Your task to perform on an android device: all mails in gmail Image 0: 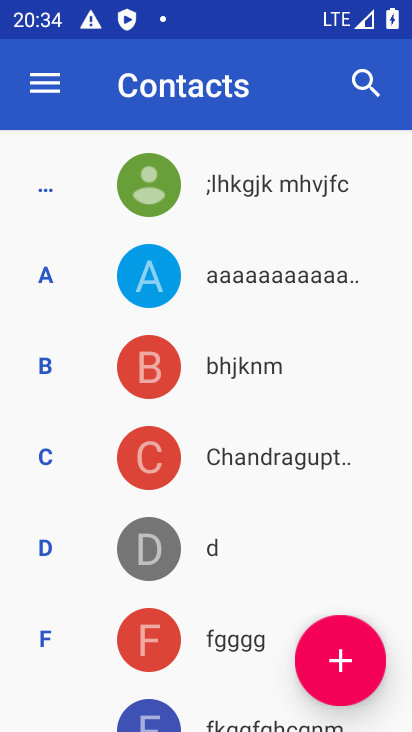
Step 0: press home button
Your task to perform on an android device: all mails in gmail Image 1: 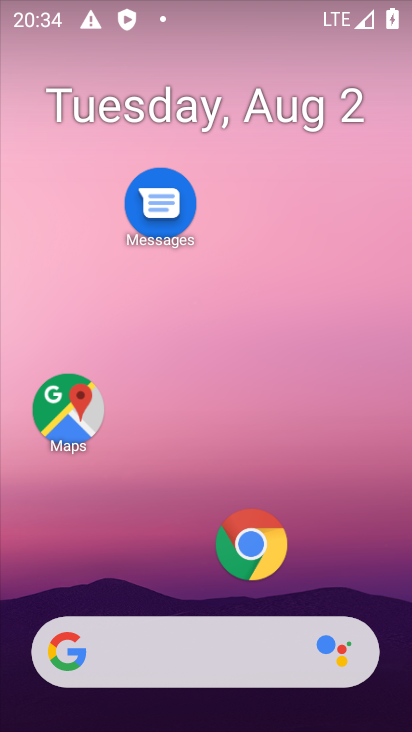
Step 1: drag from (181, 563) to (240, 227)
Your task to perform on an android device: all mails in gmail Image 2: 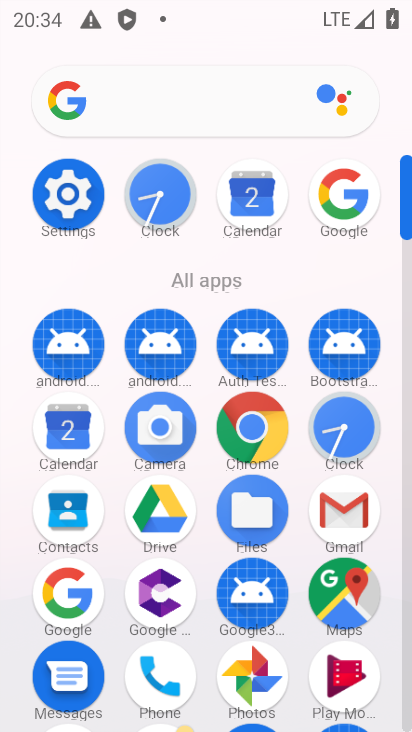
Step 2: click (336, 504)
Your task to perform on an android device: all mails in gmail Image 3: 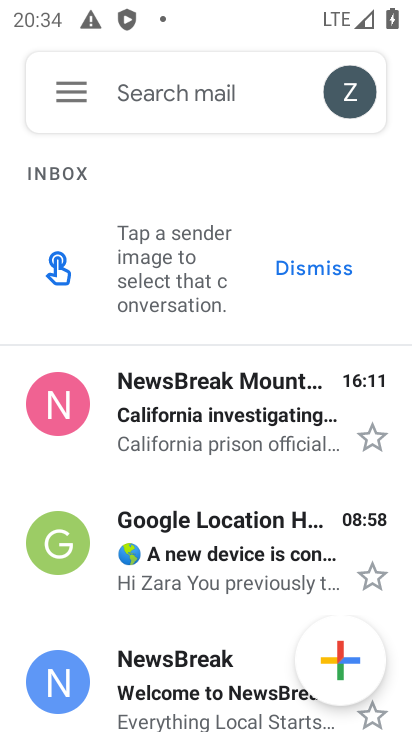
Step 3: click (85, 93)
Your task to perform on an android device: all mails in gmail Image 4: 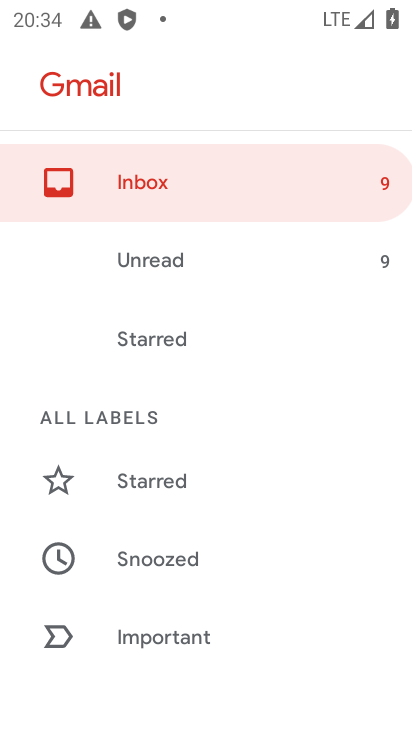
Step 4: drag from (130, 631) to (200, 216)
Your task to perform on an android device: all mails in gmail Image 5: 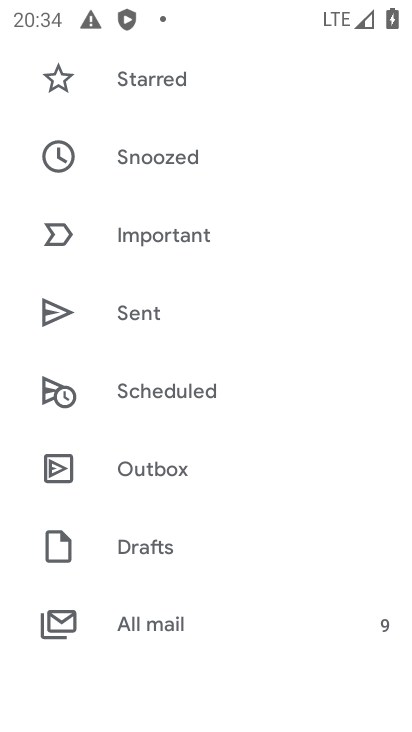
Step 5: drag from (200, 629) to (219, 479)
Your task to perform on an android device: all mails in gmail Image 6: 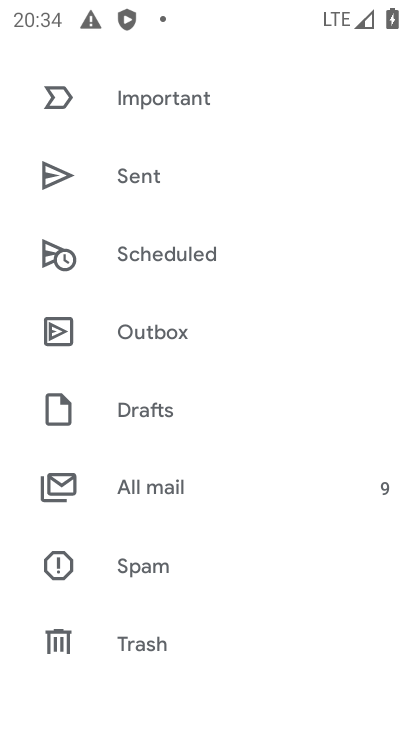
Step 6: click (175, 489)
Your task to perform on an android device: all mails in gmail Image 7: 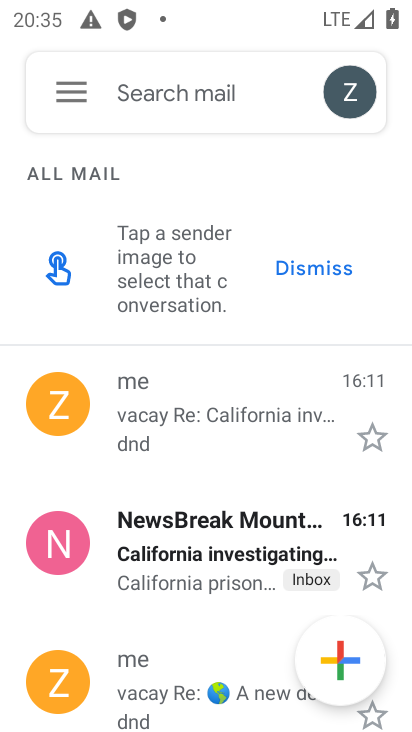
Step 7: task complete